Your task to perform on an android device: turn pop-ups on in chrome Image 0: 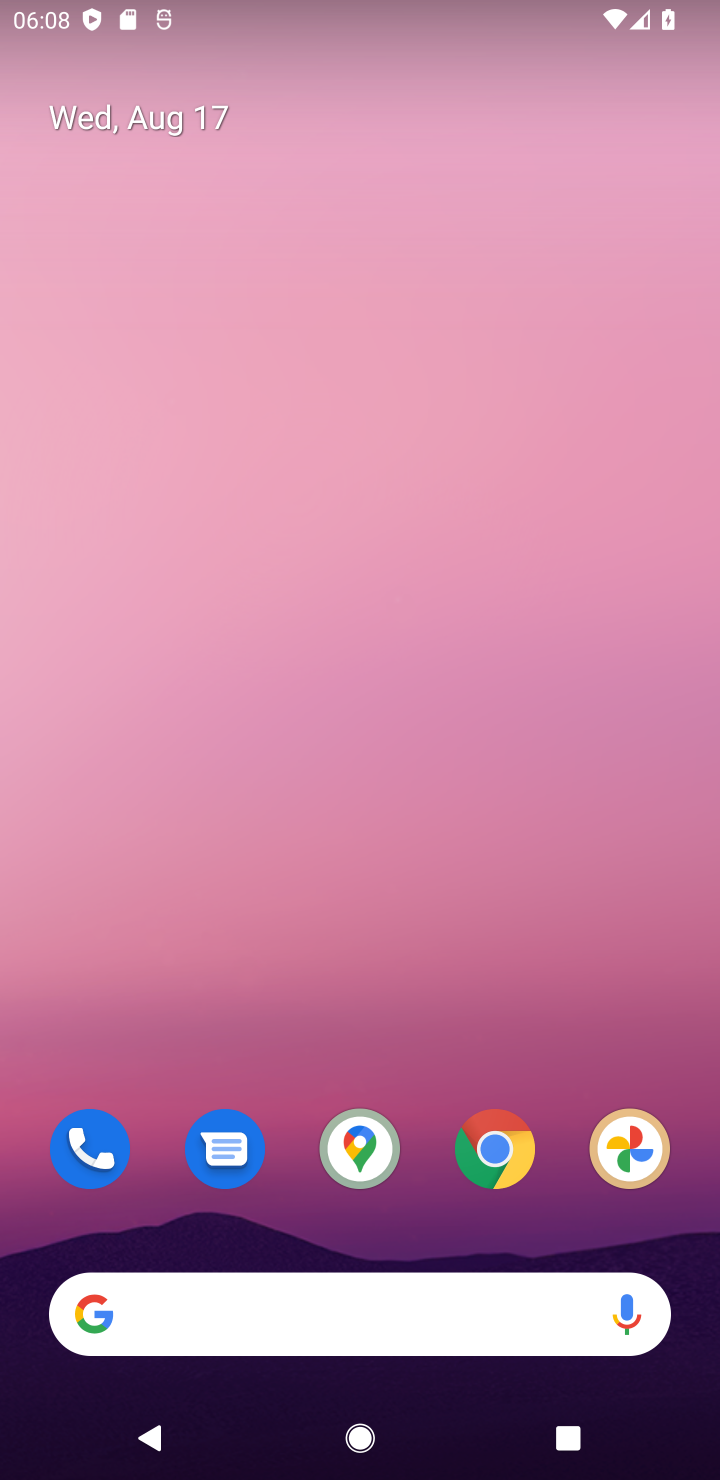
Step 0: click (505, 1130)
Your task to perform on an android device: turn pop-ups on in chrome Image 1: 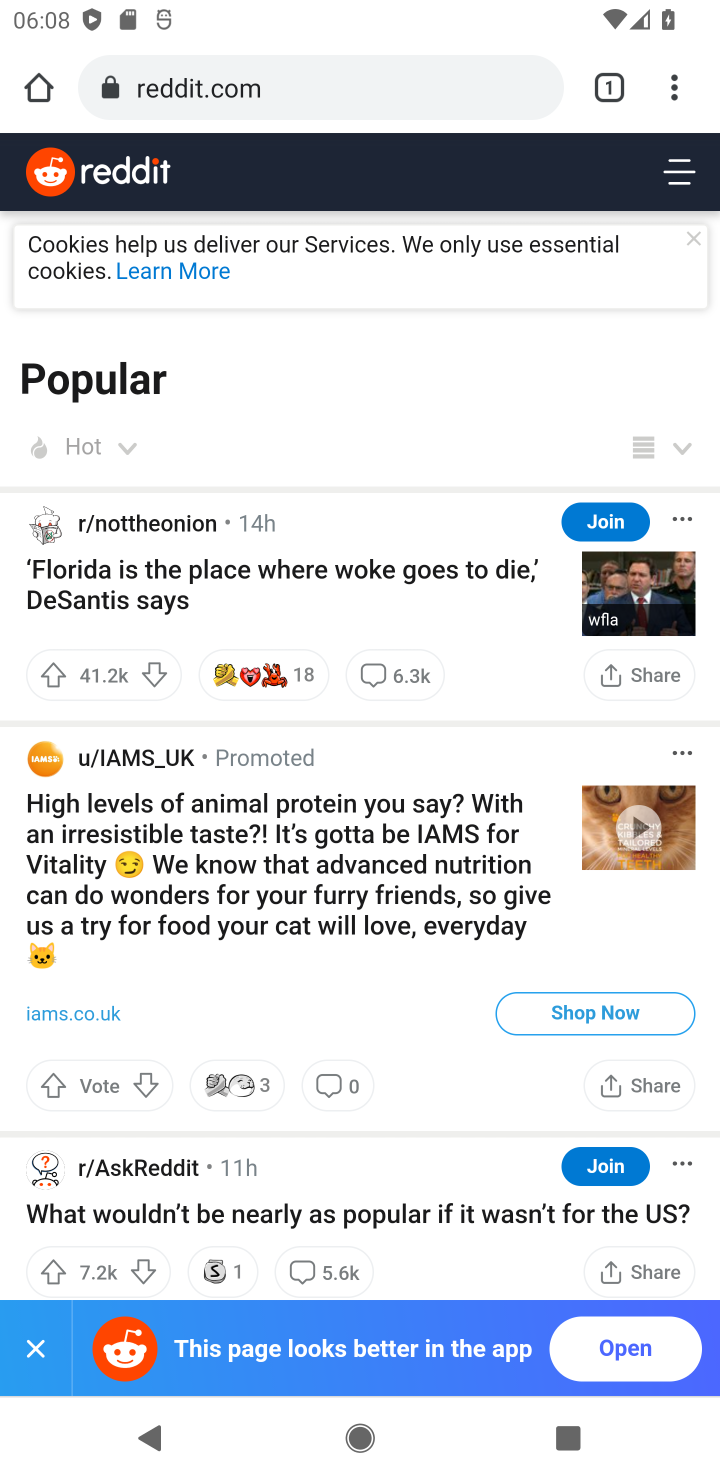
Step 1: click (669, 89)
Your task to perform on an android device: turn pop-ups on in chrome Image 2: 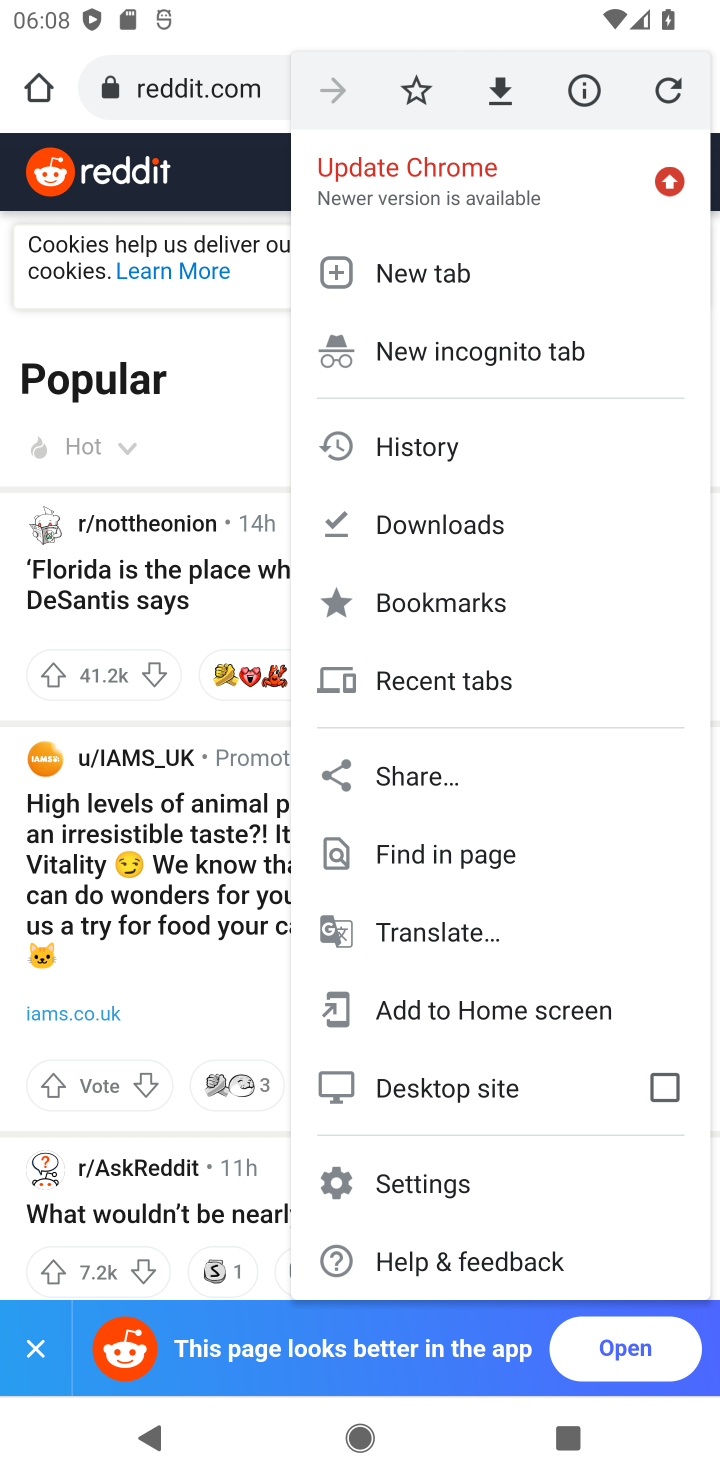
Step 2: click (438, 1170)
Your task to perform on an android device: turn pop-ups on in chrome Image 3: 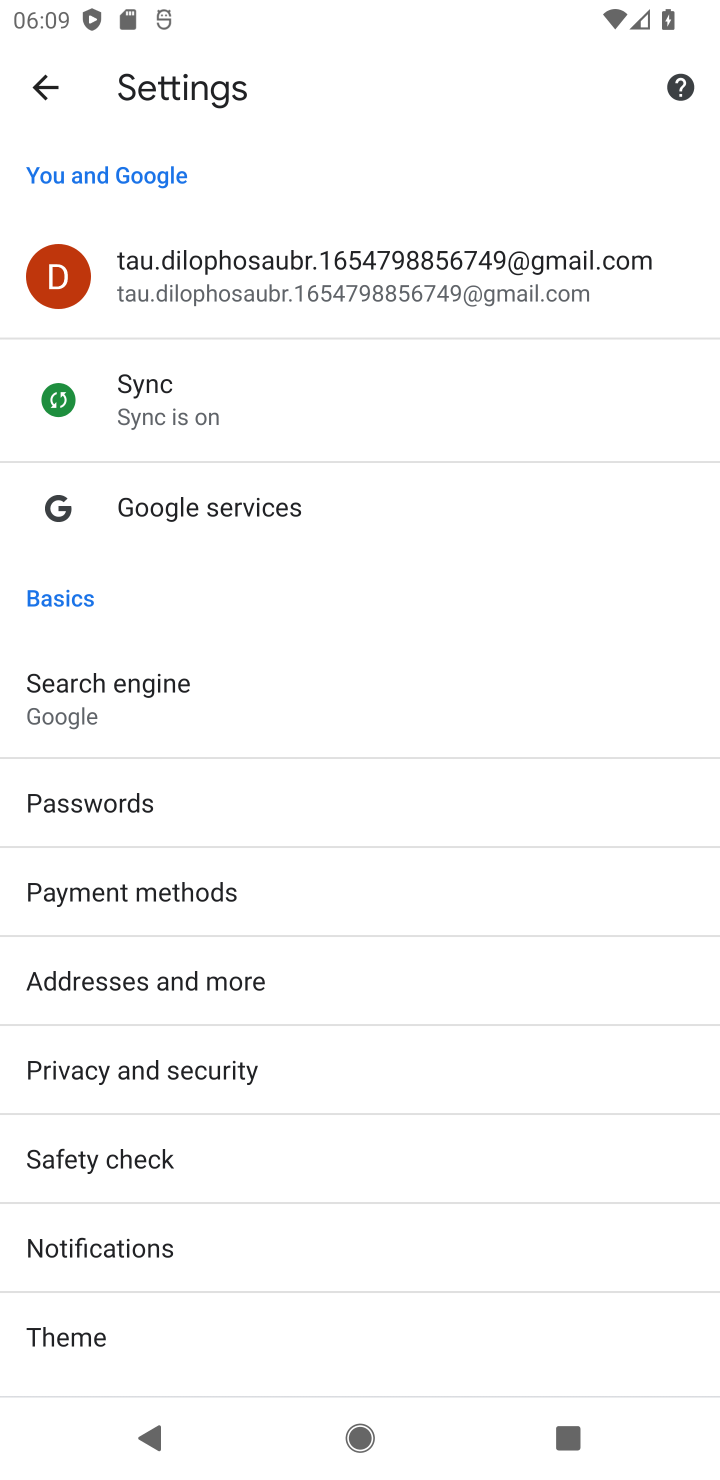
Step 3: drag from (335, 1249) to (335, 613)
Your task to perform on an android device: turn pop-ups on in chrome Image 4: 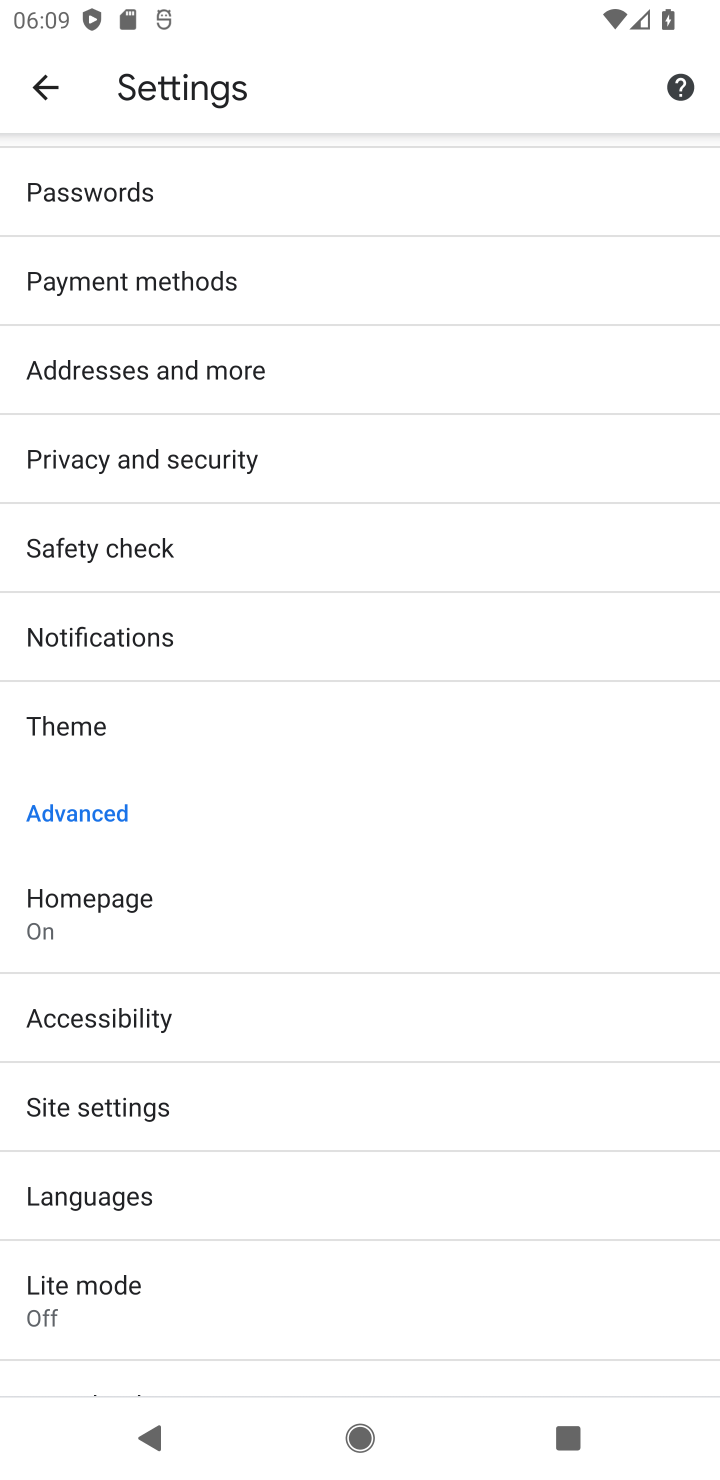
Step 4: click (83, 1091)
Your task to perform on an android device: turn pop-ups on in chrome Image 5: 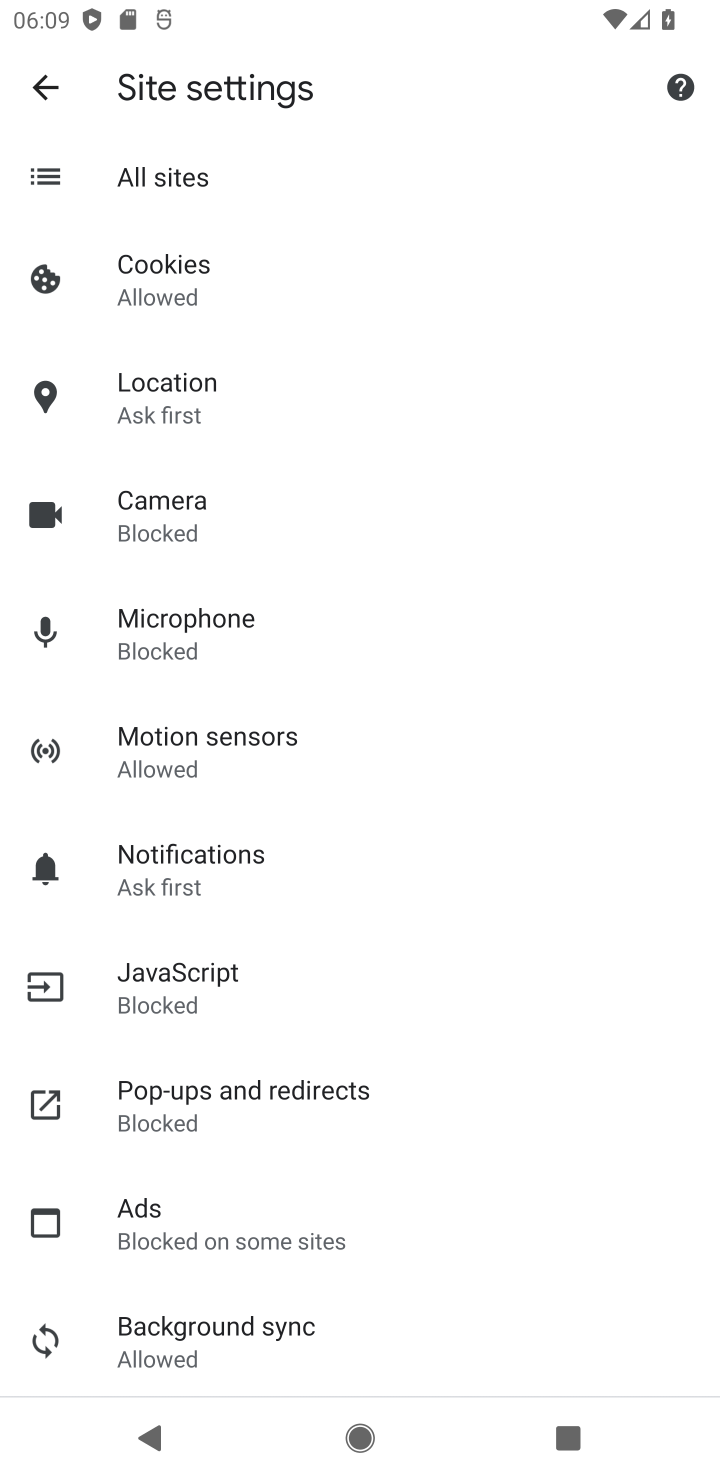
Step 5: click (138, 1092)
Your task to perform on an android device: turn pop-ups on in chrome Image 6: 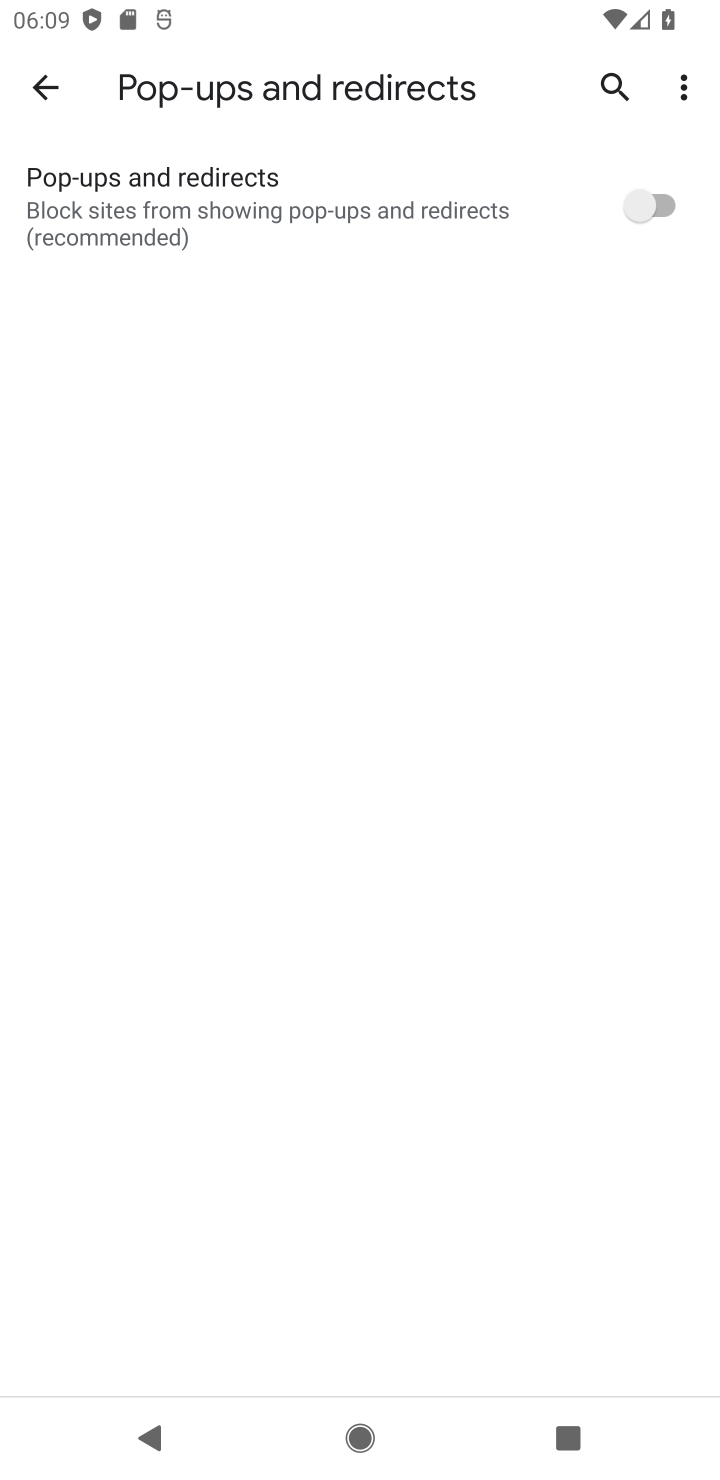
Step 6: click (138, 1092)
Your task to perform on an android device: turn pop-ups on in chrome Image 7: 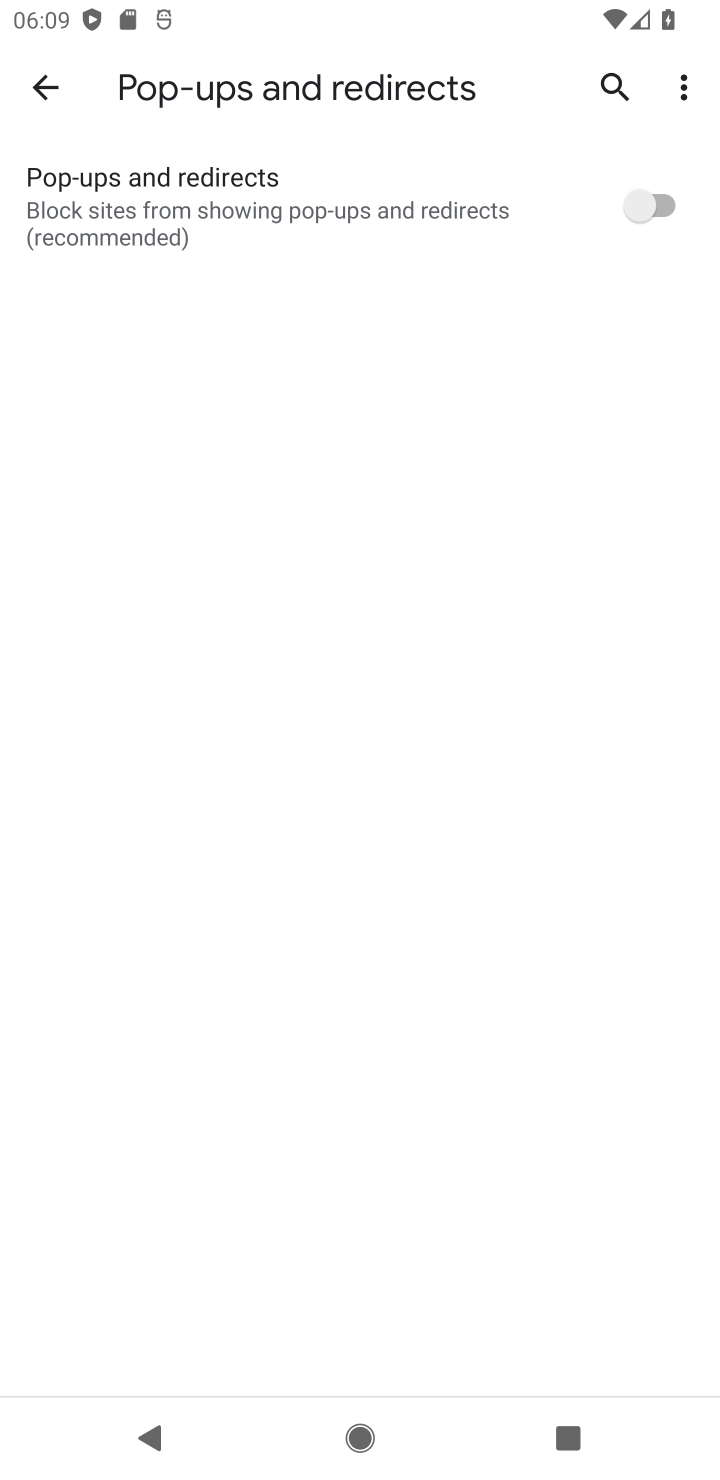
Step 7: click (635, 208)
Your task to perform on an android device: turn pop-ups on in chrome Image 8: 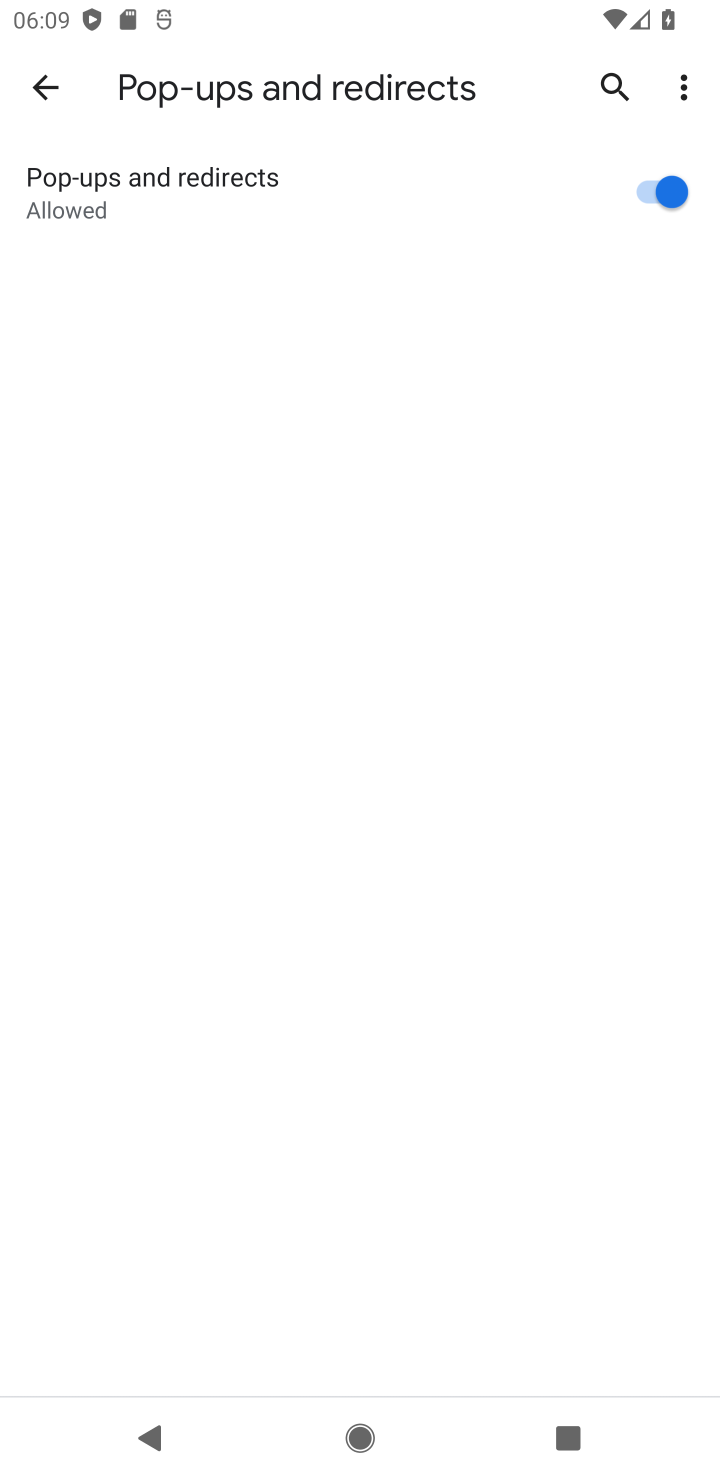
Step 8: task complete